Your task to perform on an android device: install app "Microsoft Outlook" Image 0: 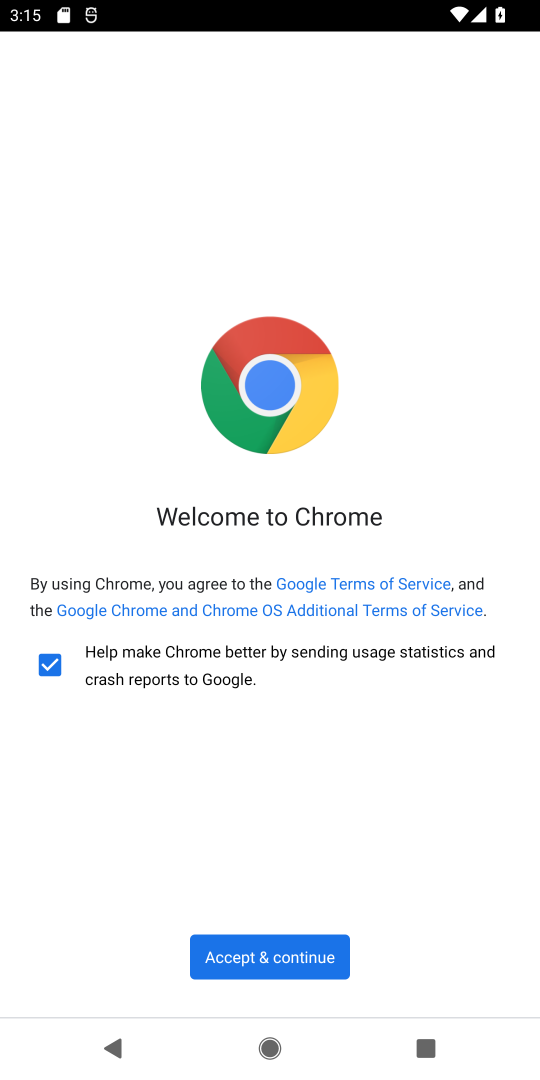
Step 0: press home button
Your task to perform on an android device: install app "Microsoft Outlook" Image 1: 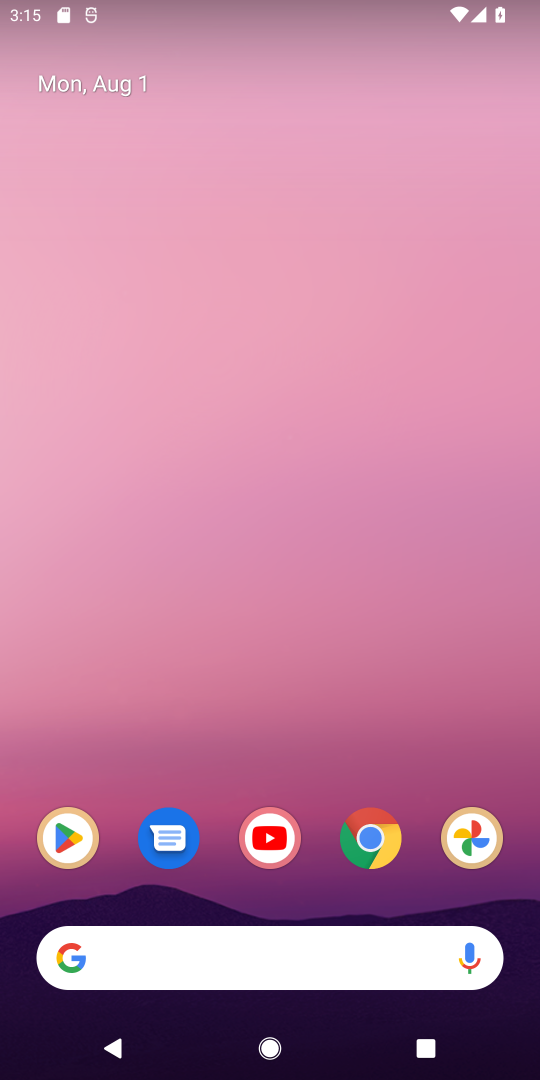
Step 1: click (51, 831)
Your task to perform on an android device: install app "Microsoft Outlook" Image 2: 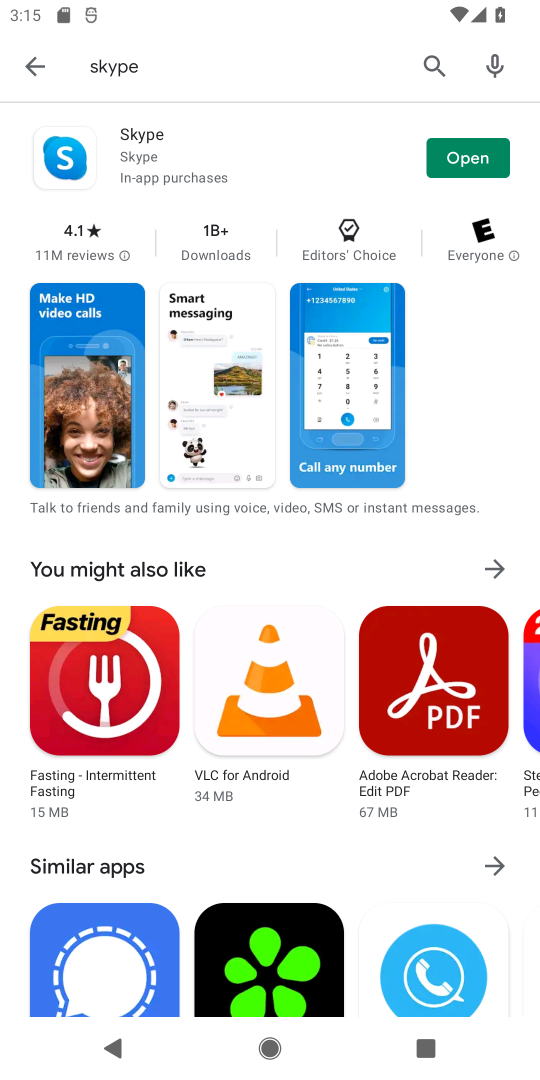
Step 2: click (430, 68)
Your task to perform on an android device: install app "Microsoft Outlook" Image 3: 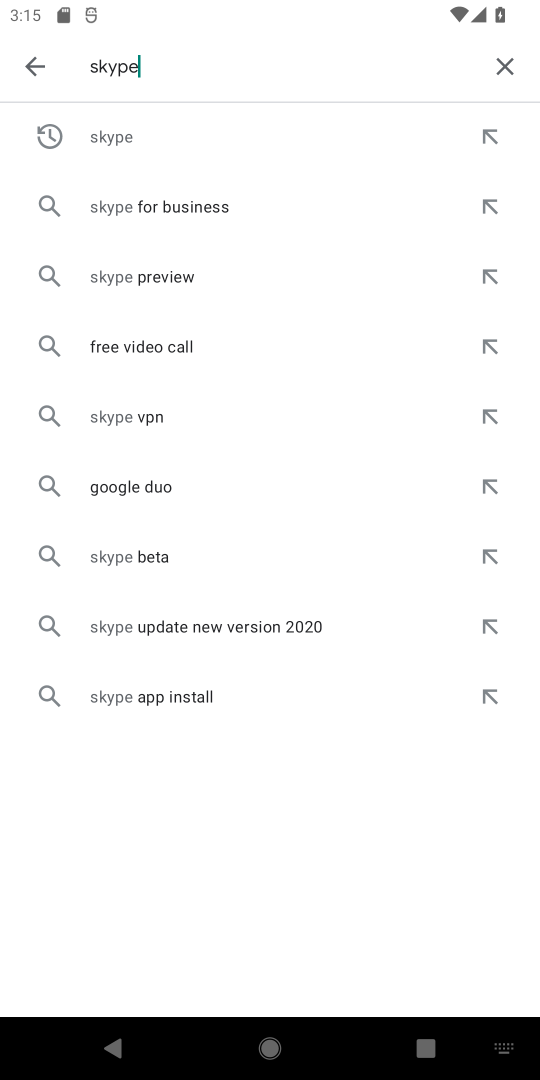
Step 3: click (502, 54)
Your task to perform on an android device: install app "Microsoft Outlook" Image 4: 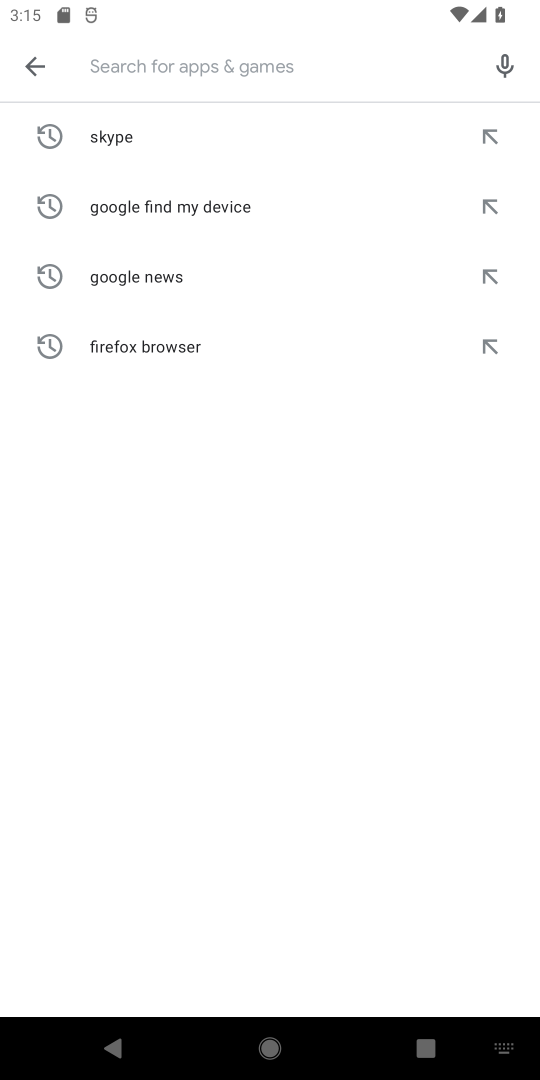
Step 4: type "Microsoft Outlook"
Your task to perform on an android device: install app "Microsoft Outlook" Image 5: 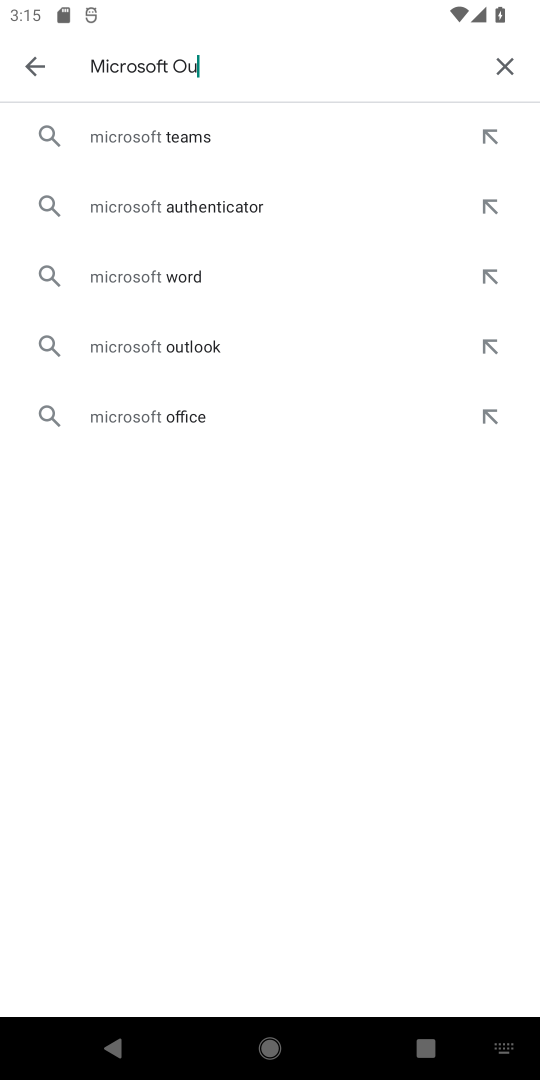
Step 5: type ""
Your task to perform on an android device: install app "Microsoft Outlook" Image 6: 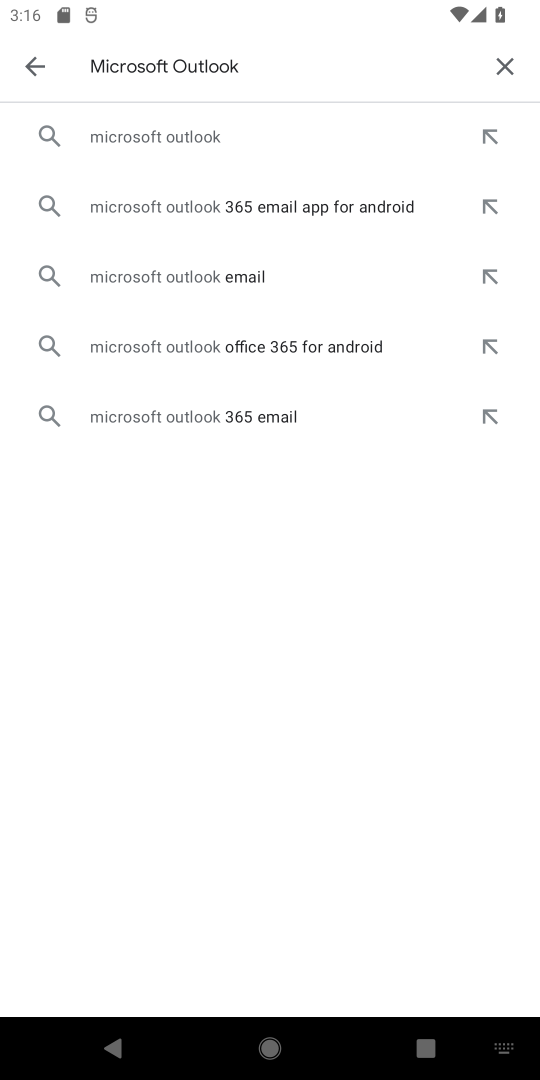
Step 6: click (196, 146)
Your task to perform on an android device: install app "Microsoft Outlook" Image 7: 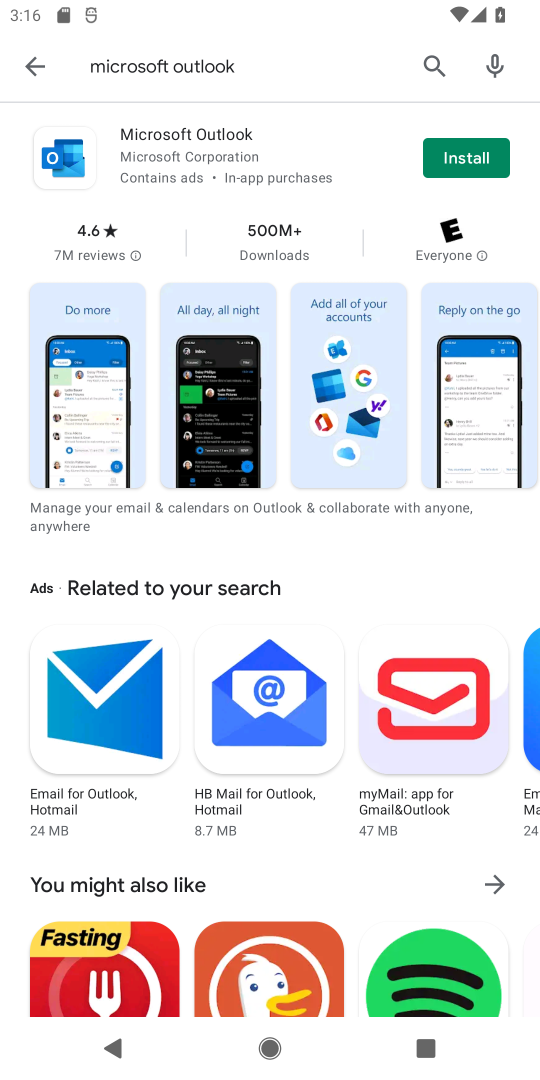
Step 7: click (475, 157)
Your task to perform on an android device: install app "Microsoft Outlook" Image 8: 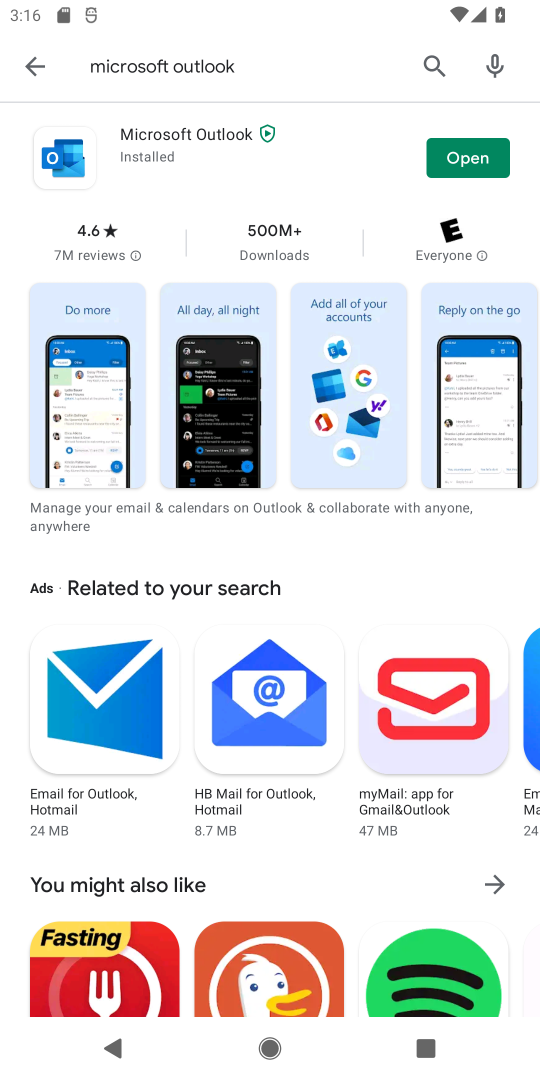
Step 8: task complete